Your task to perform on an android device: turn off priority inbox in the gmail app Image 0: 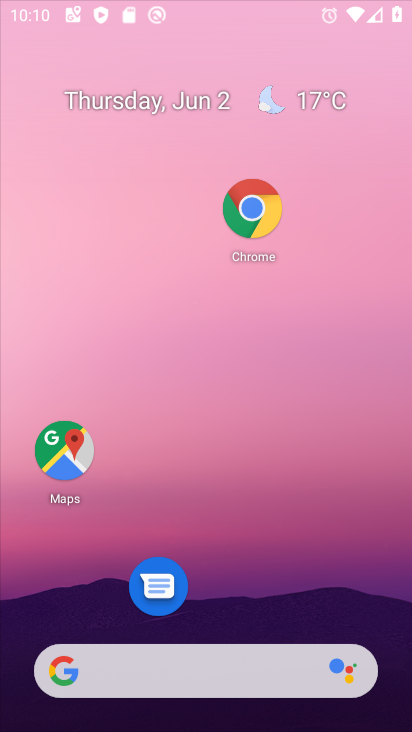
Step 0: press home button
Your task to perform on an android device: turn off priority inbox in the gmail app Image 1: 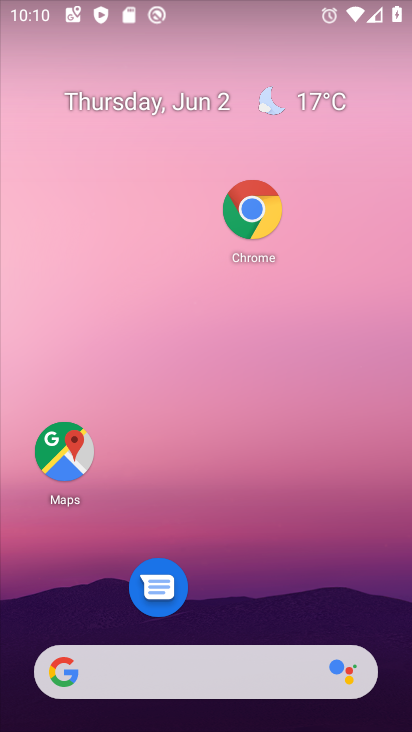
Step 1: drag from (209, 621) to (218, 22)
Your task to perform on an android device: turn off priority inbox in the gmail app Image 2: 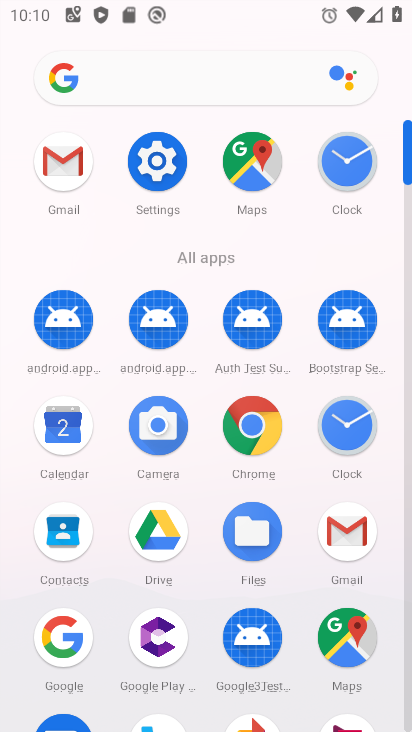
Step 2: click (59, 154)
Your task to perform on an android device: turn off priority inbox in the gmail app Image 3: 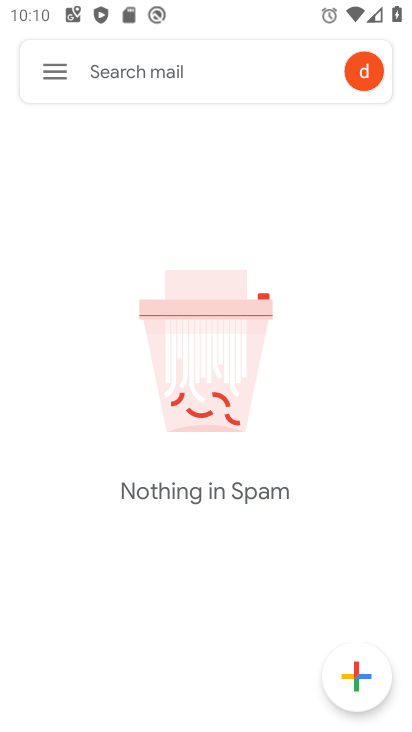
Step 3: click (47, 72)
Your task to perform on an android device: turn off priority inbox in the gmail app Image 4: 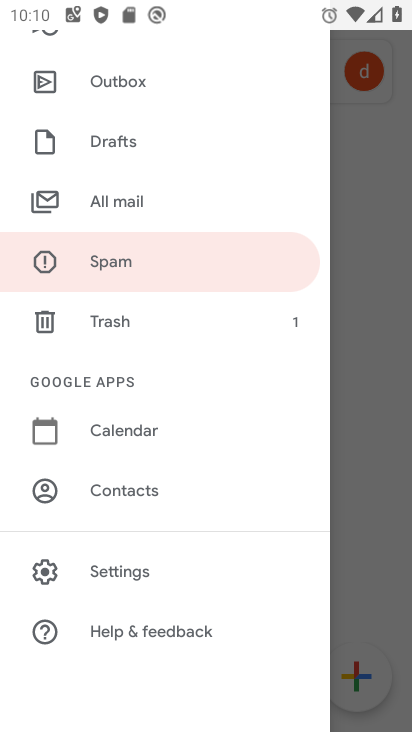
Step 4: click (156, 567)
Your task to perform on an android device: turn off priority inbox in the gmail app Image 5: 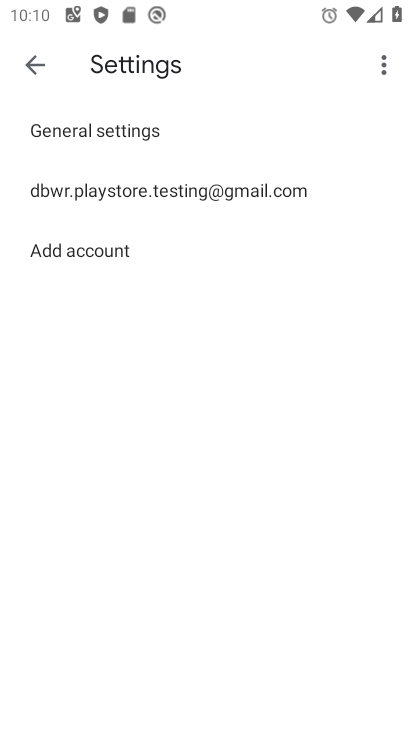
Step 5: click (202, 192)
Your task to perform on an android device: turn off priority inbox in the gmail app Image 6: 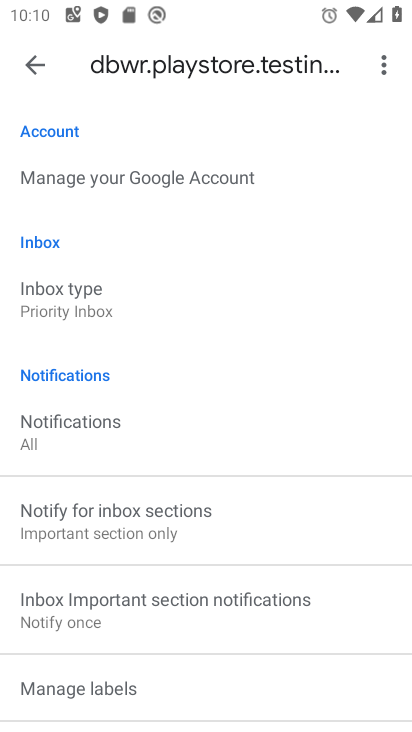
Step 6: click (126, 304)
Your task to perform on an android device: turn off priority inbox in the gmail app Image 7: 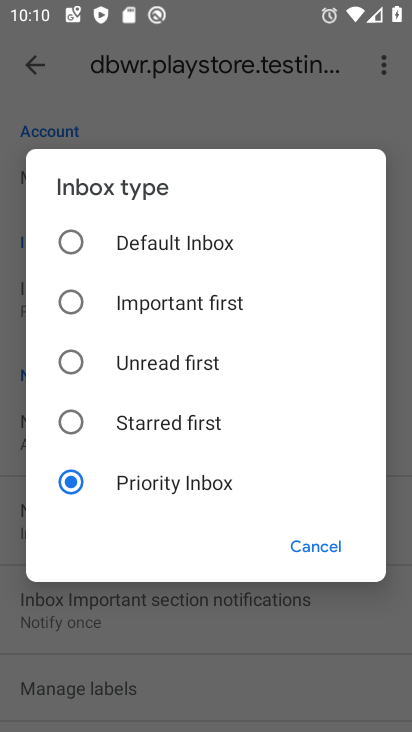
Step 7: click (73, 239)
Your task to perform on an android device: turn off priority inbox in the gmail app Image 8: 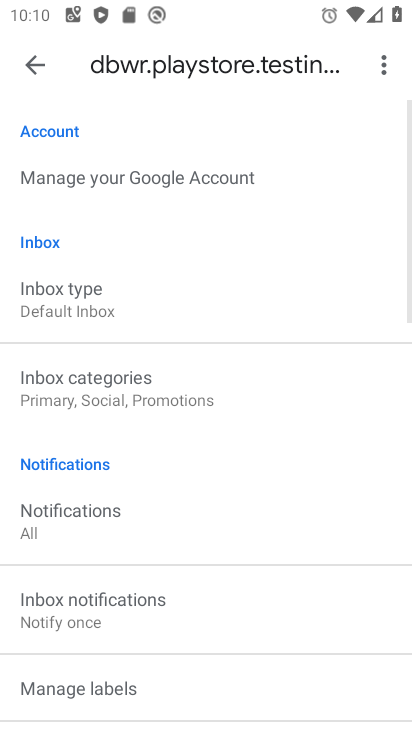
Step 8: task complete